Your task to perform on an android device: Look up the best rated hair dryer on Walmart. Image 0: 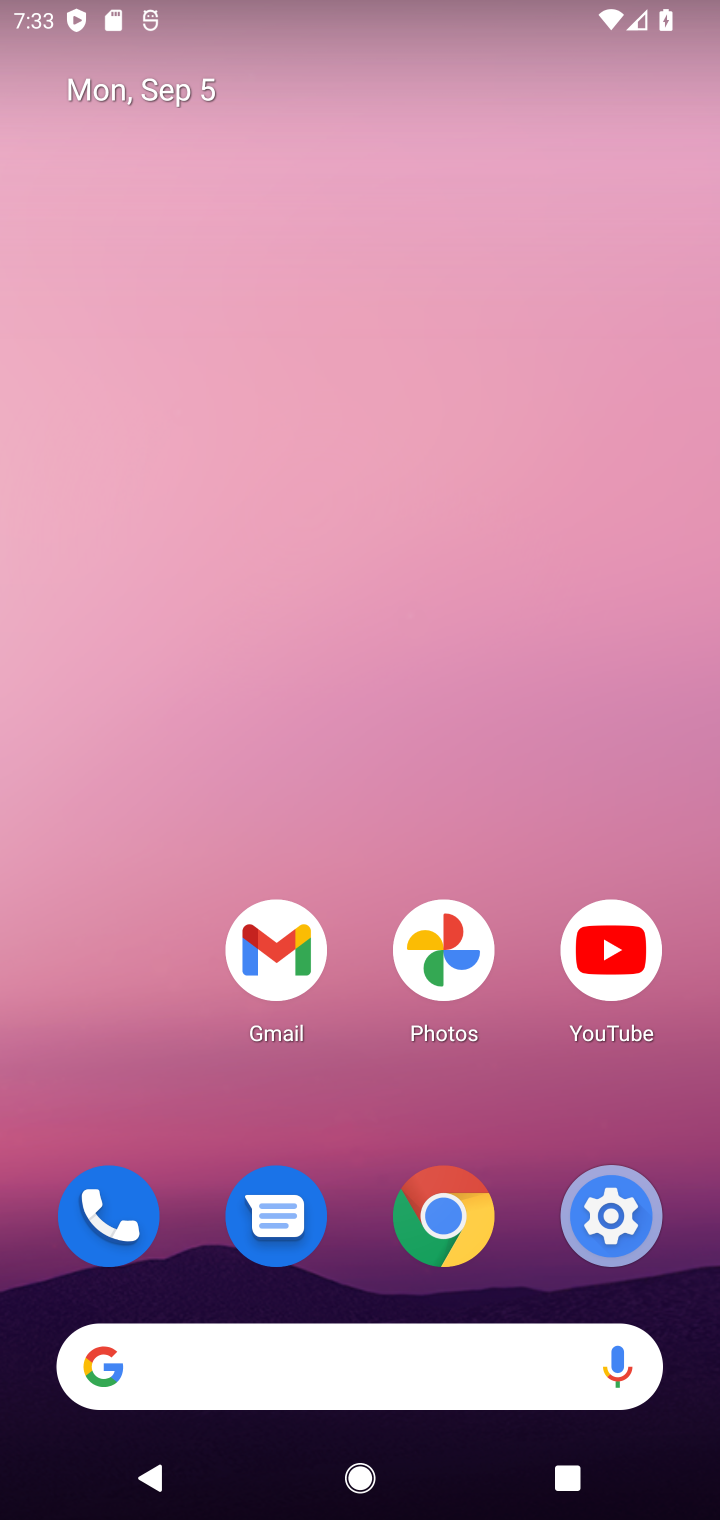
Step 0: click (367, 1349)
Your task to perform on an android device: Look up the best rated hair dryer on Walmart. Image 1: 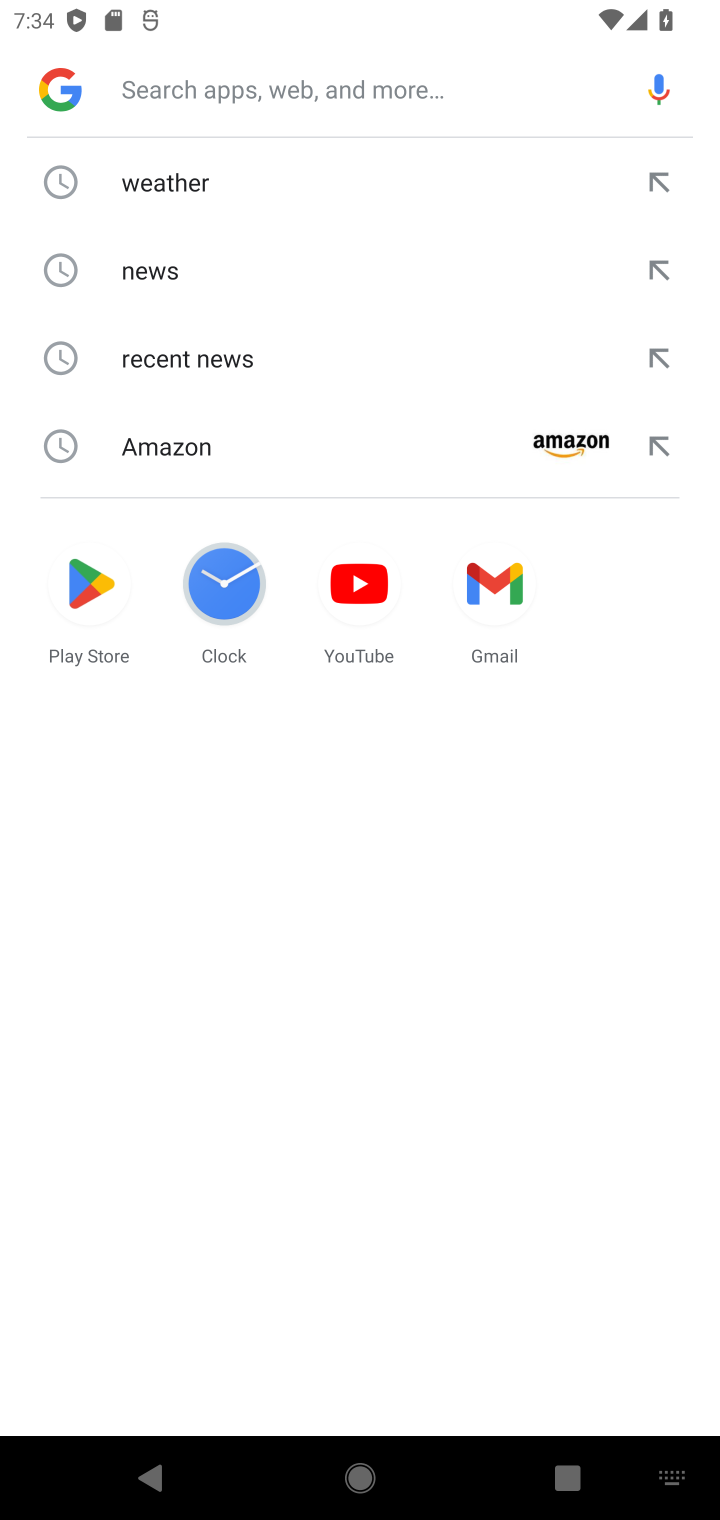
Step 1: type "Walmart."
Your task to perform on an android device: Look up the best rated hair dryer on Walmart. Image 2: 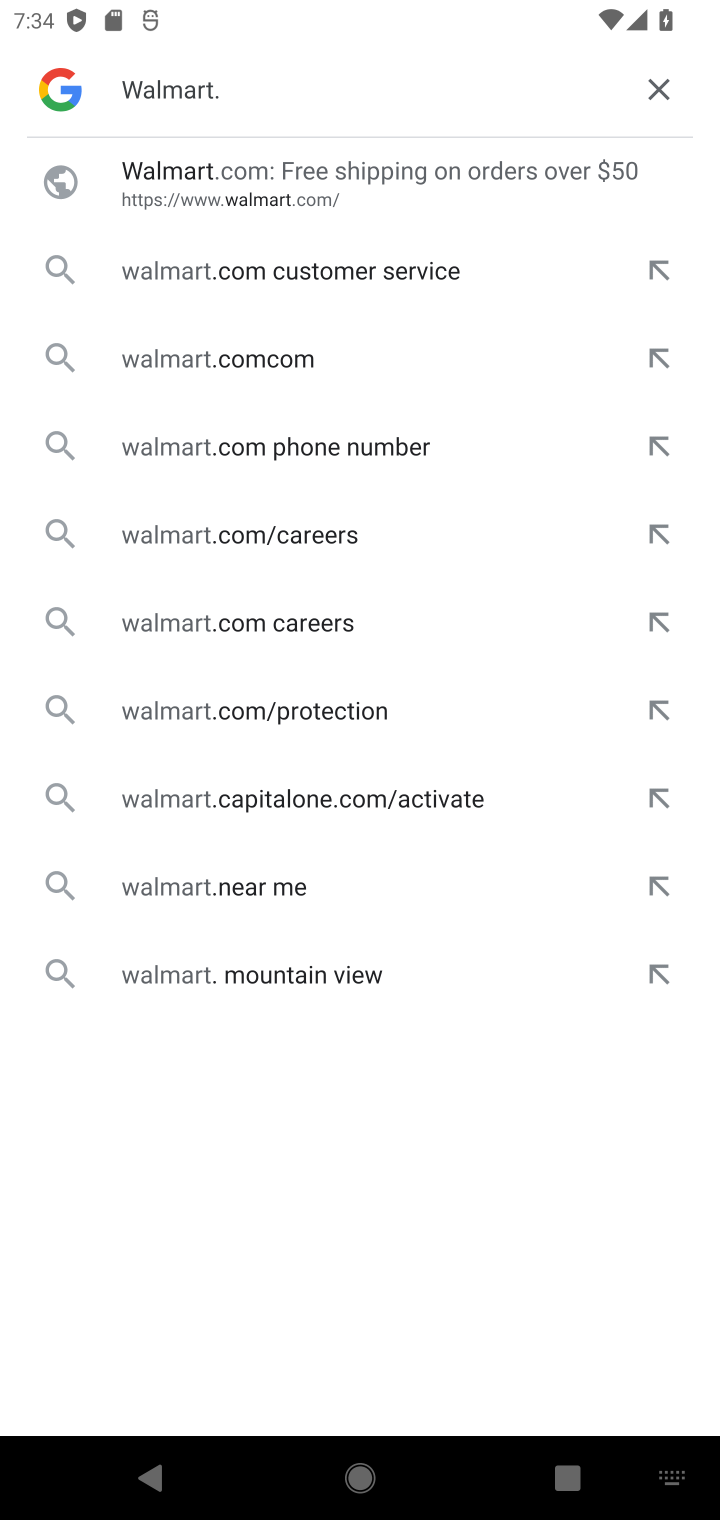
Step 2: click (253, 170)
Your task to perform on an android device: Look up the best rated hair dryer on Walmart. Image 3: 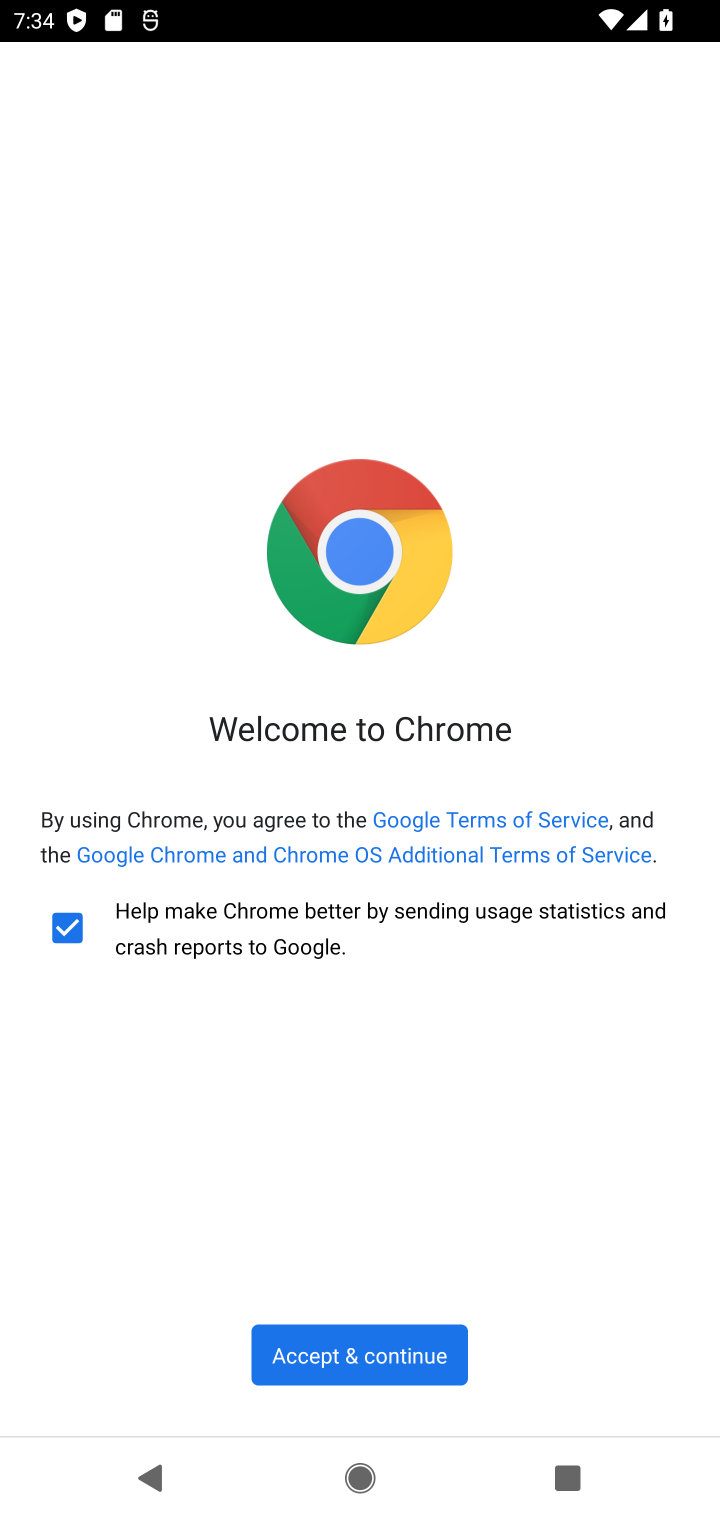
Step 3: click (412, 1363)
Your task to perform on an android device: Look up the best rated hair dryer on Walmart. Image 4: 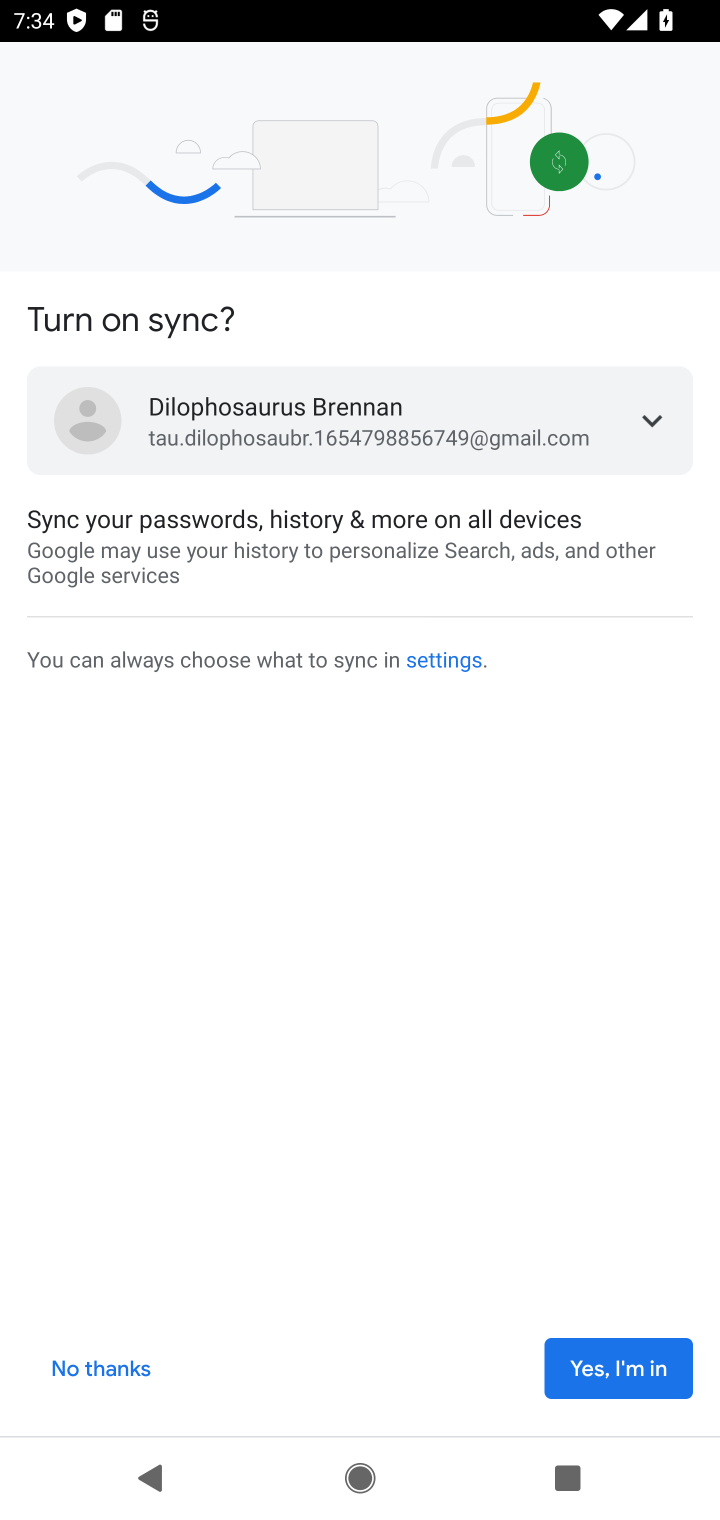
Step 4: click (626, 1363)
Your task to perform on an android device: Look up the best rated hair dryer on Walmart. Image 5: 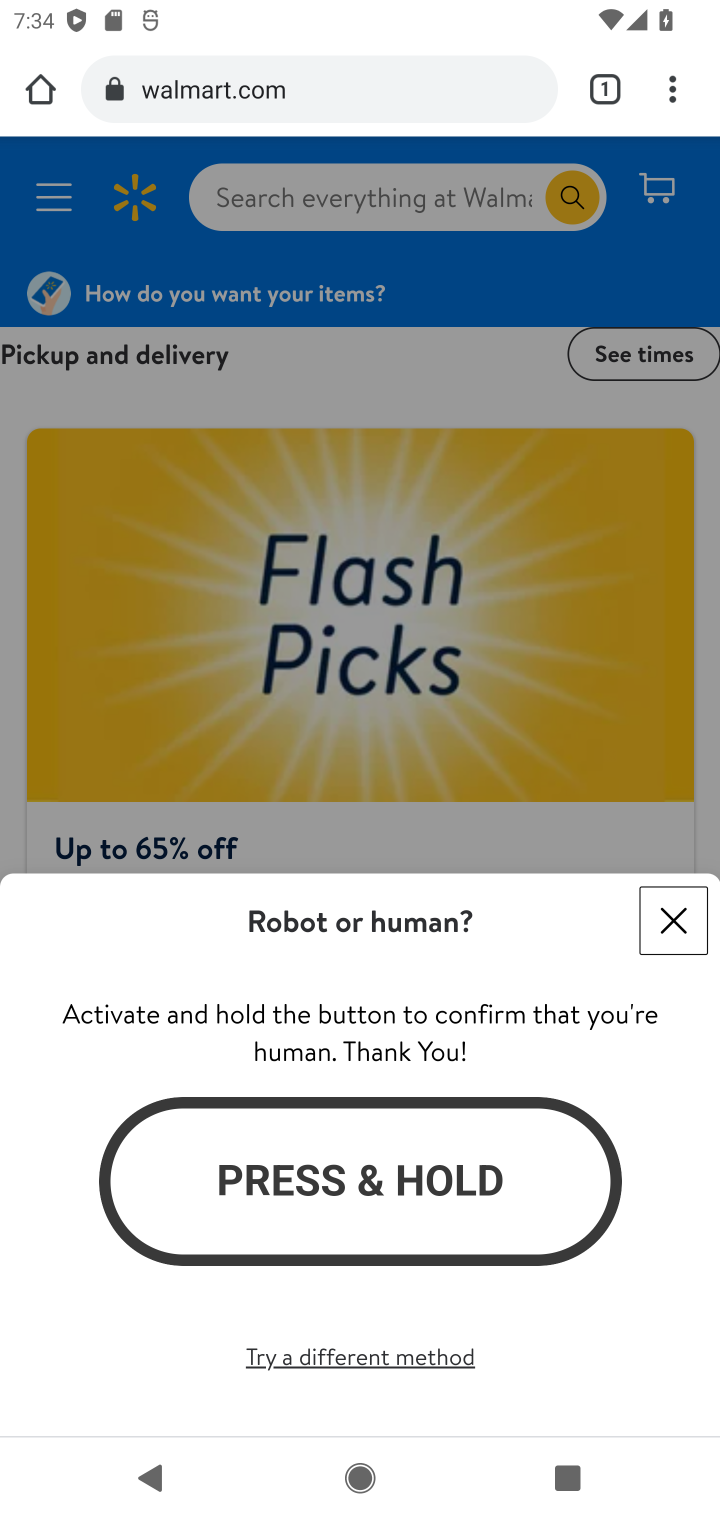
Step 5: click (653, 911)
Your task to perform on an android device: Look up the best rated hair dryer on Walmart. Image 6: 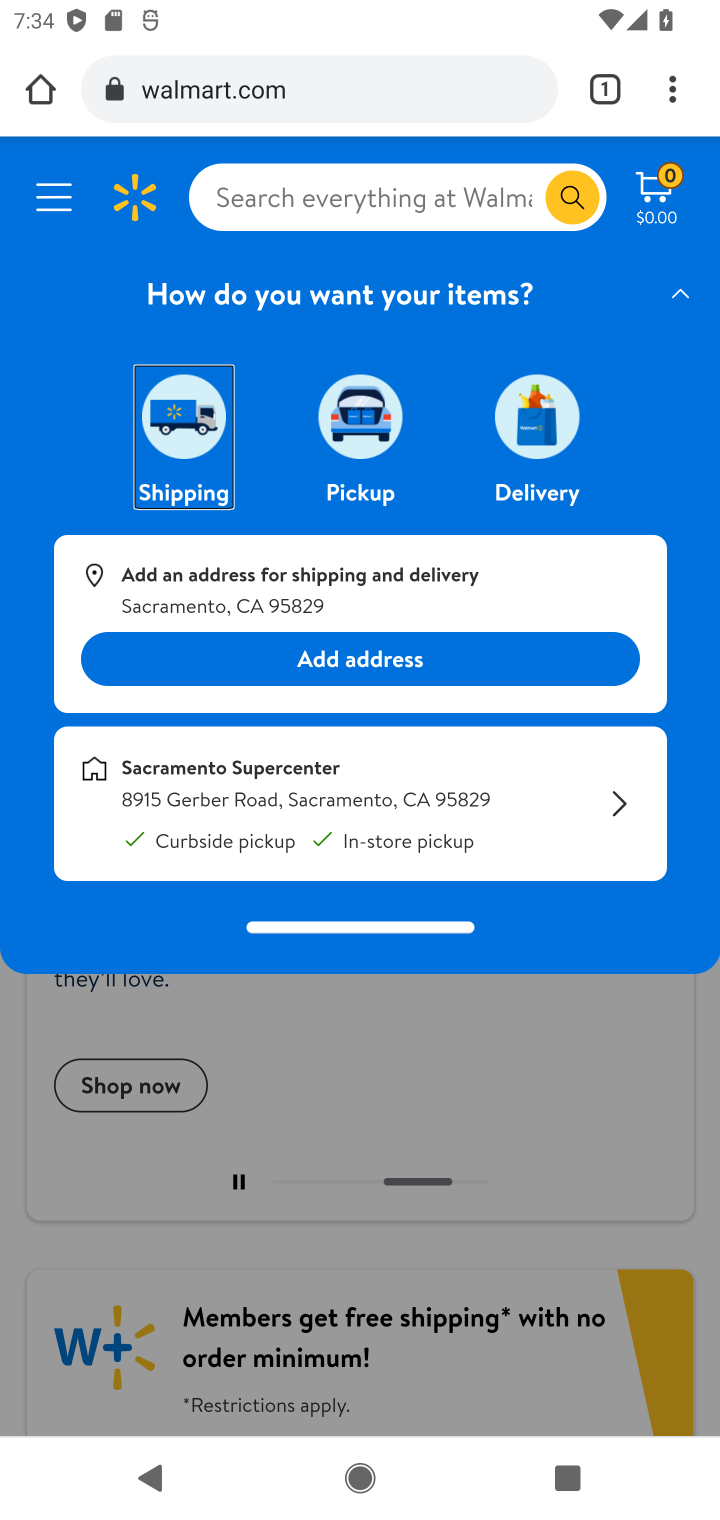
Step 6: click (419, 174)
Your task to perform on an android device: Look up the best rated hair dryer on Walmart. Image 7: 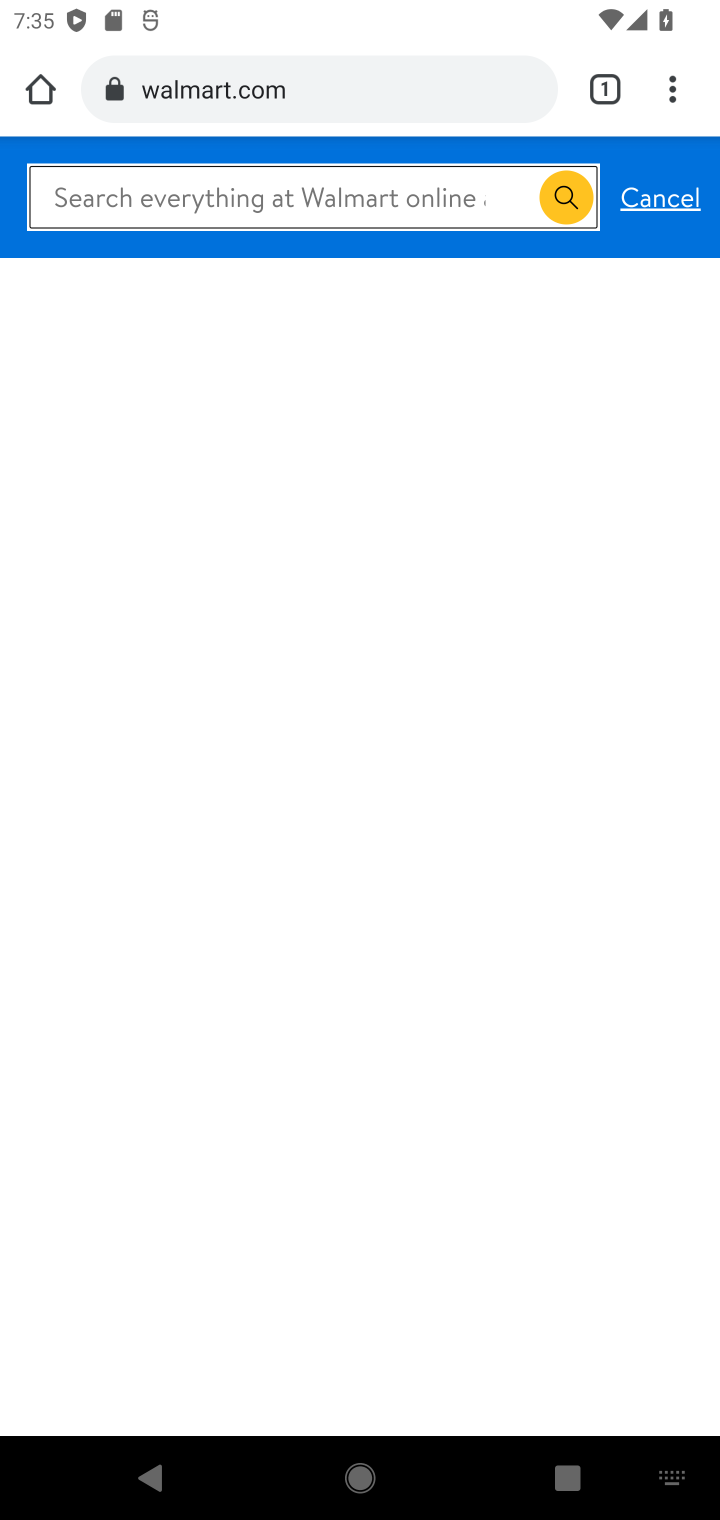
Step 7: type "best rated hair dryer "
Your task to perform on an android device: Look up the best rated hair dryer on Walmart. Image 8: 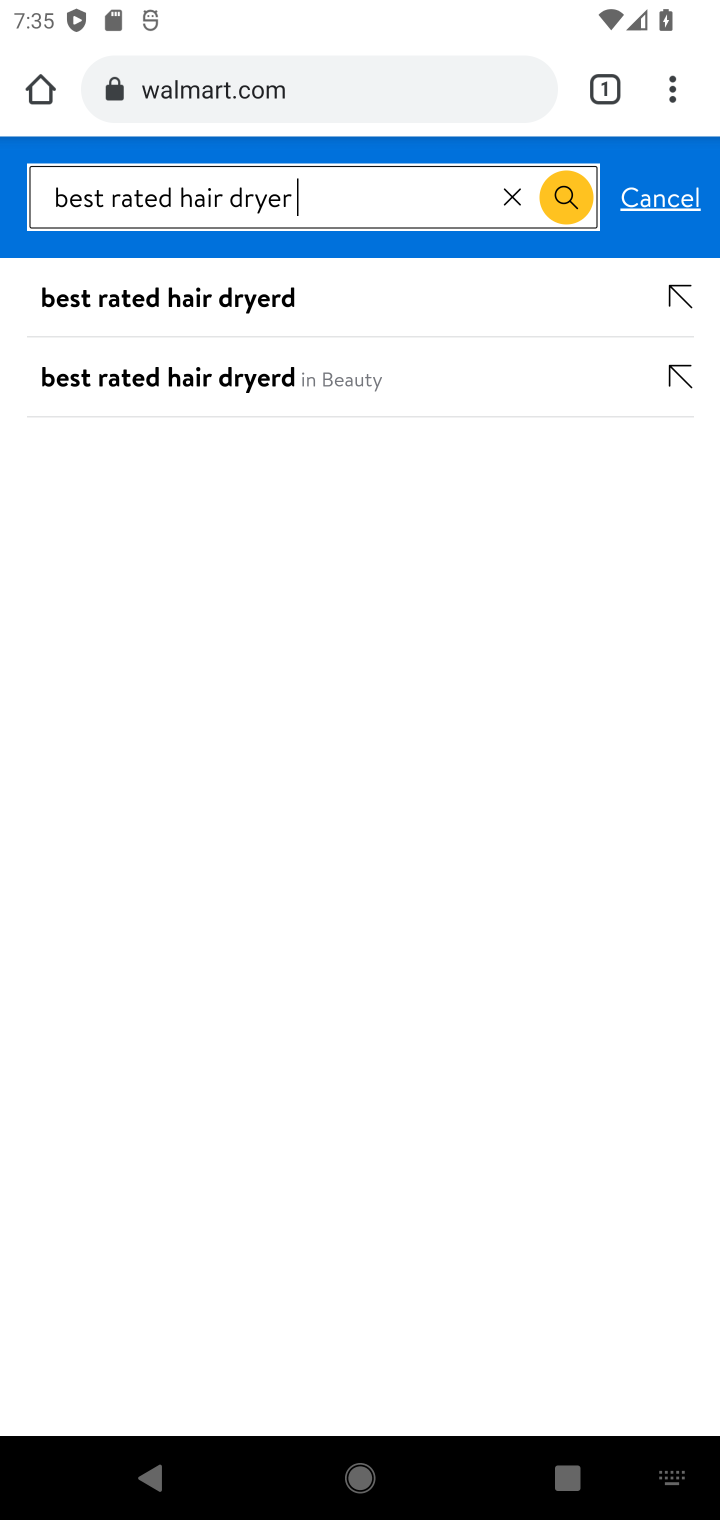
Step 8: click (253, 307)
Your task to perform on an android device: Look up the best rated hair dryer on Walmart. Image 9: 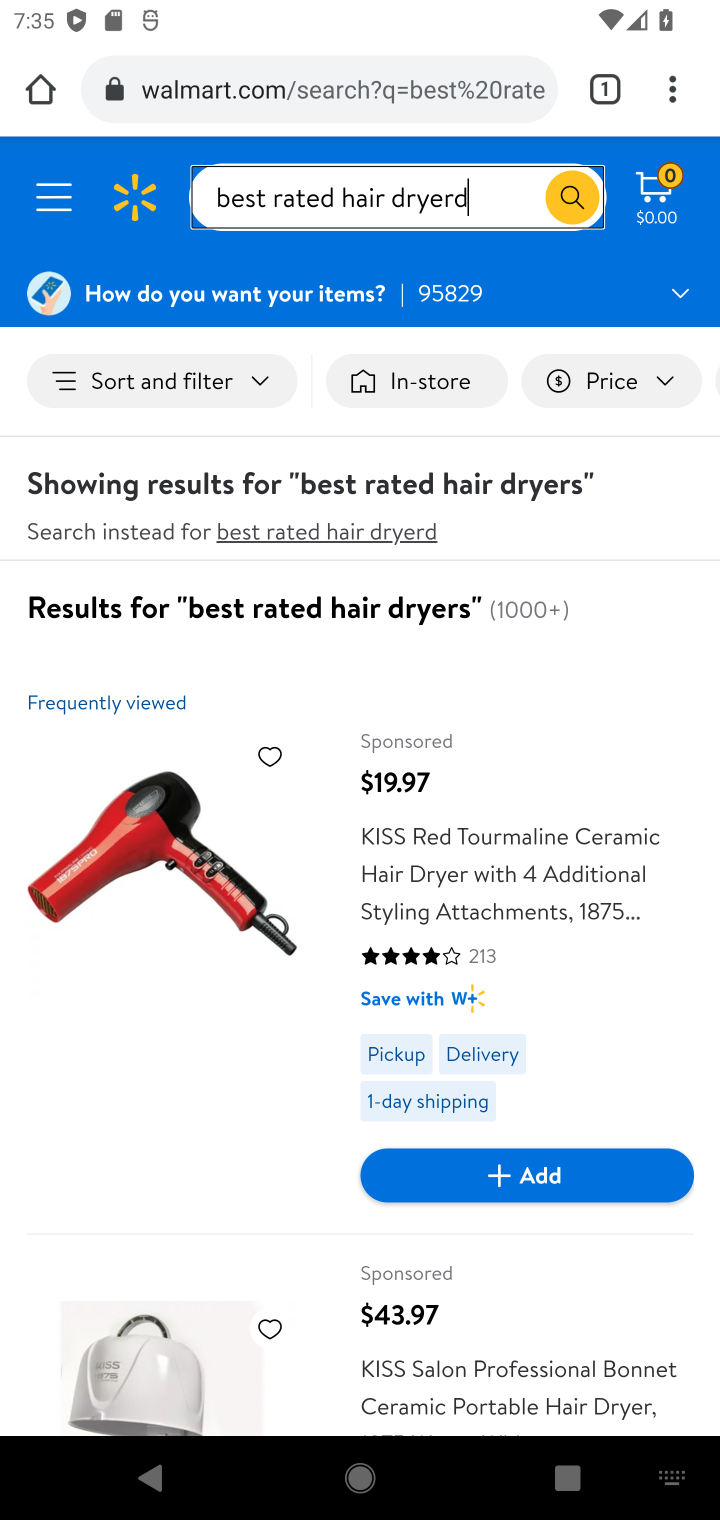
Step 9: task complete